Your task to perform on an android device: open wifi settings Image 0: 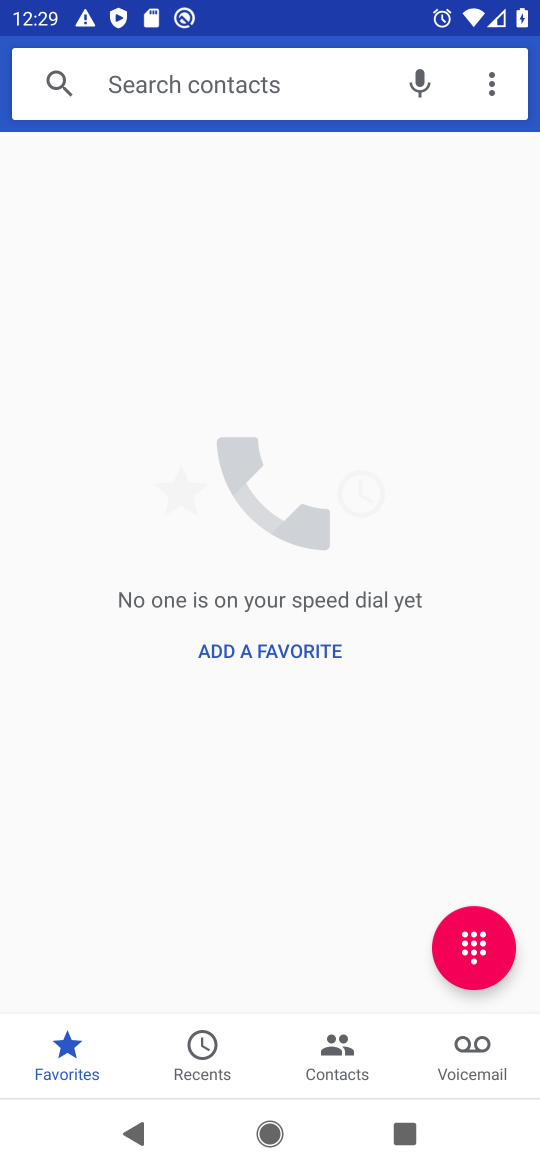
Step 0: press home button
Your task to perform on an android device: open wifi settings Image 1: 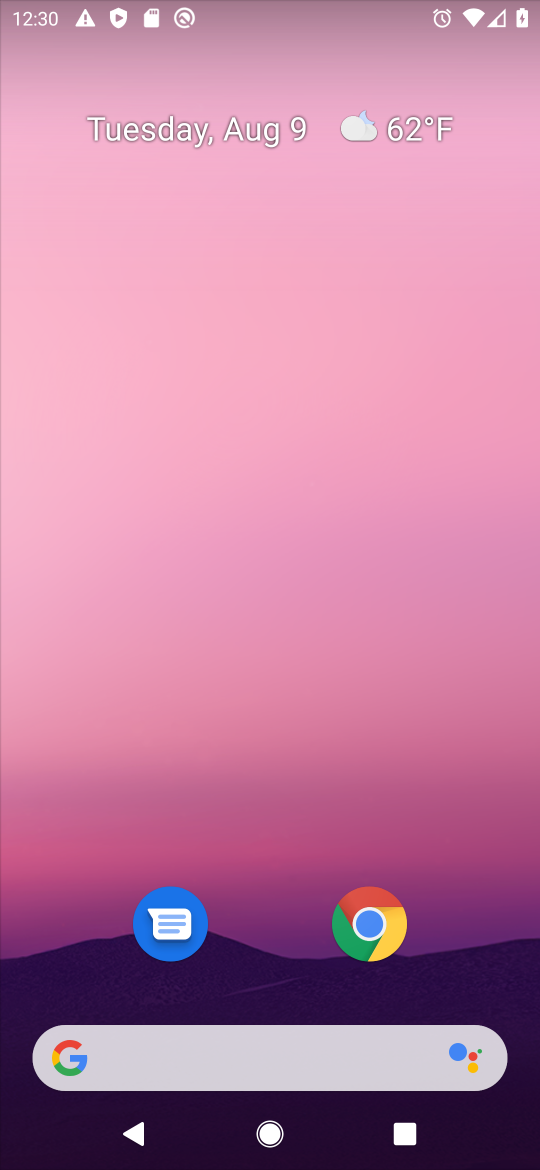
Step 1: drag from (253, 993) to (188, 211)
Your task to perform on an android device: open wifi settings Image 2: 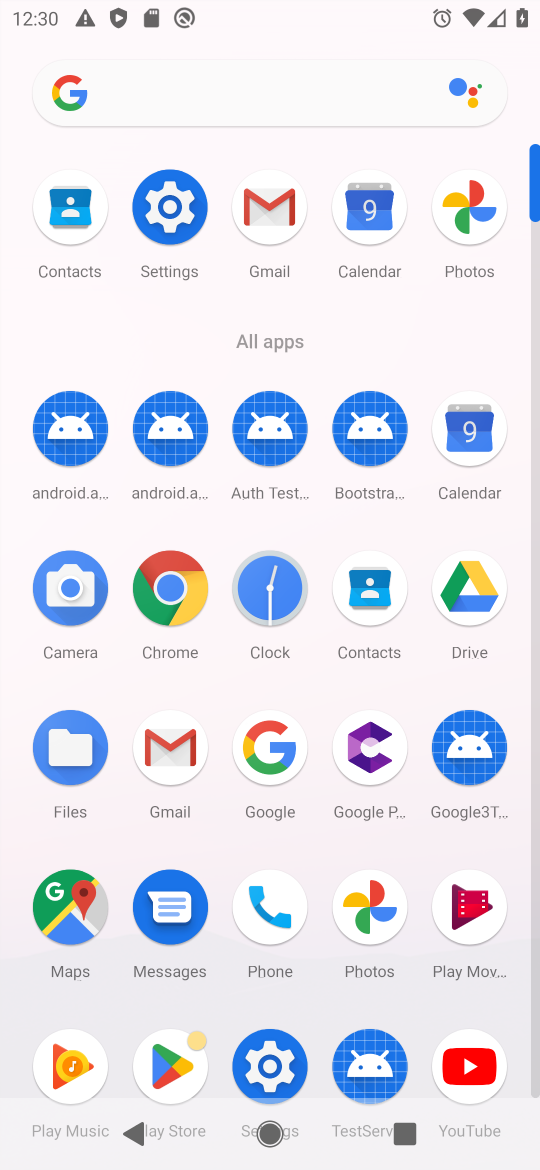
Step 2: click (151, 243)
Your task to perform on an android device: open wifi settings Image 3: 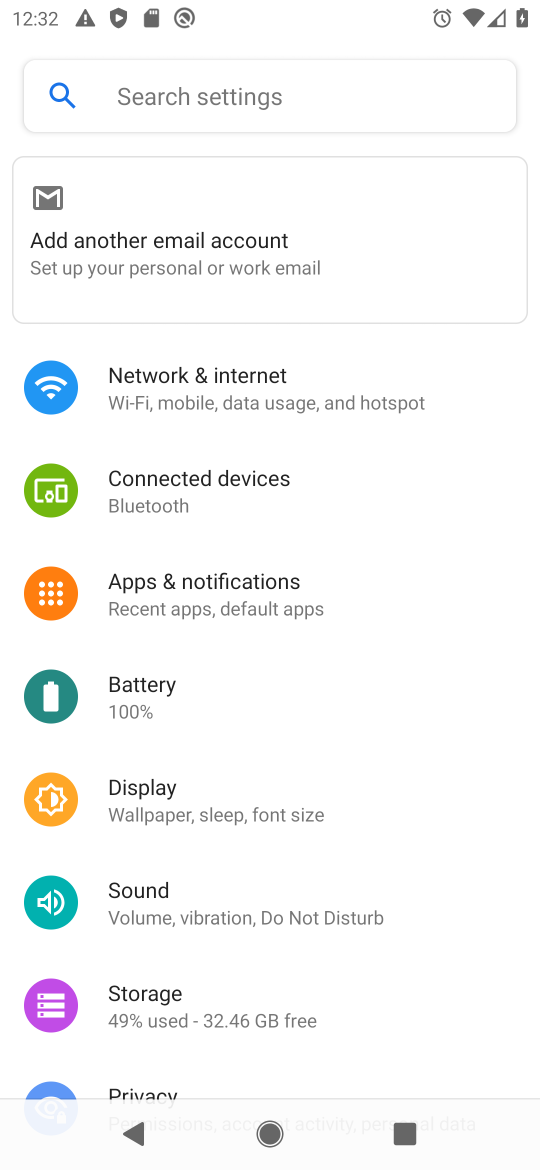
Step 3: click (278, 370)
Your task to perform on an android device: open wifi settings Image 4: 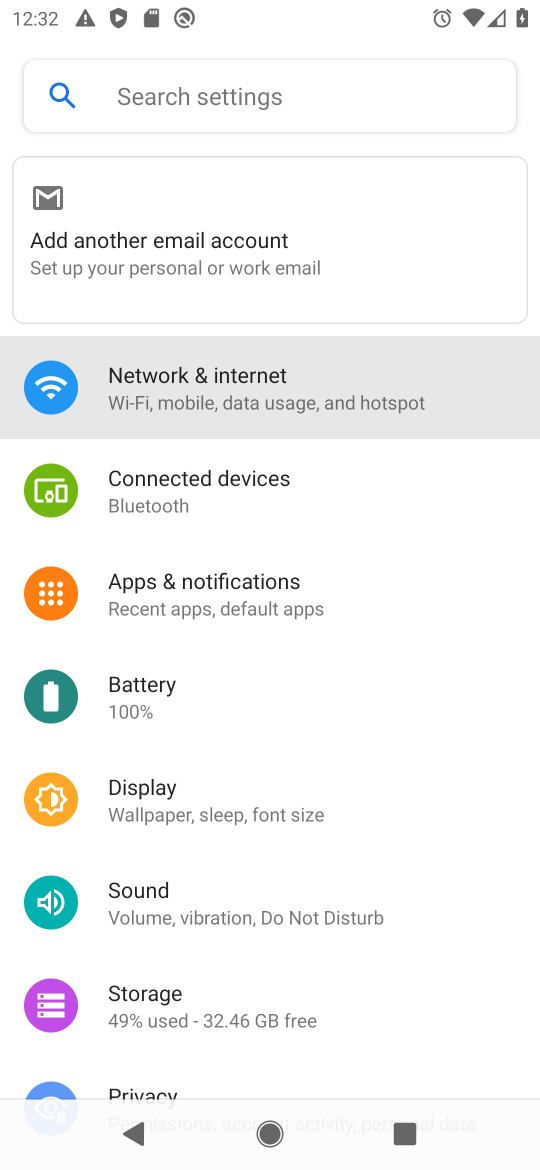
Step 4: task complete